Your task to perform on an android device: Open Google Maps and go to "Timeline" Image 0: 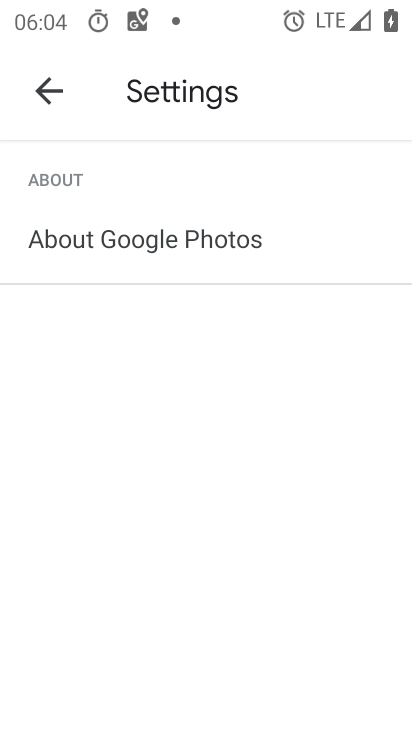
Step 0: press home button
Your task to perform on an android device: Open Google Maps and go to "Timeline" Image 1: 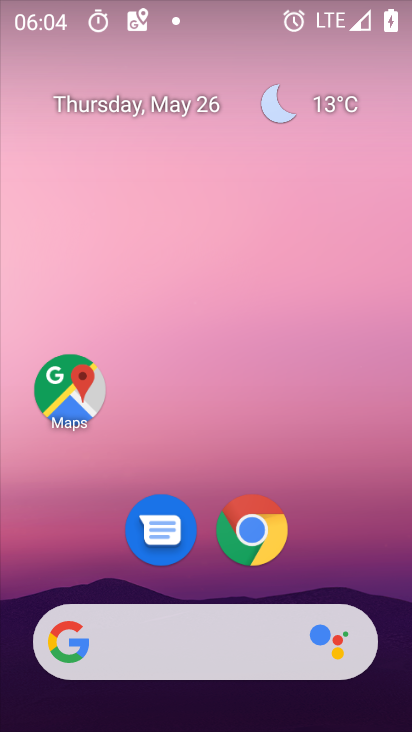
Step 1: click (33, 198)
Your task to perform on an android device: Open Google Maps and go to "Timeline" Image 2: 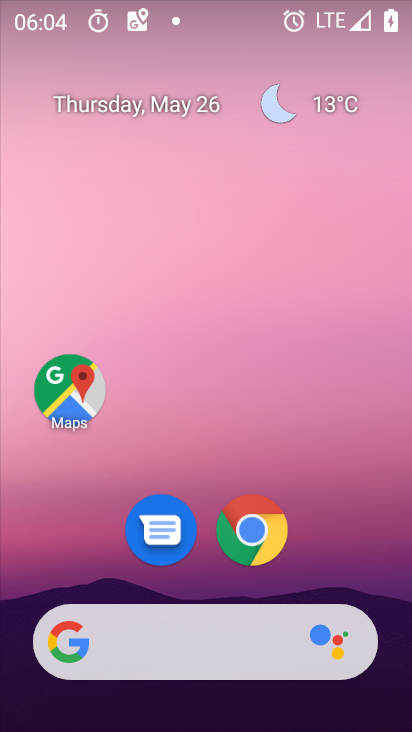
Step 2: drag from (276, 590) to (308, 50)
Your task to perform on an android device: Open Google Maps and go to "Timeline" Image 3: 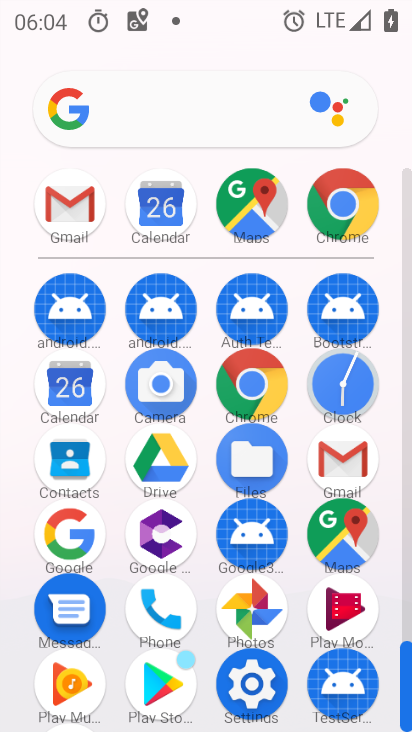
Step 3: click (353, 537)
Your task to perform on an android device: Open Google Maps and go to "Timeline" Image 4: 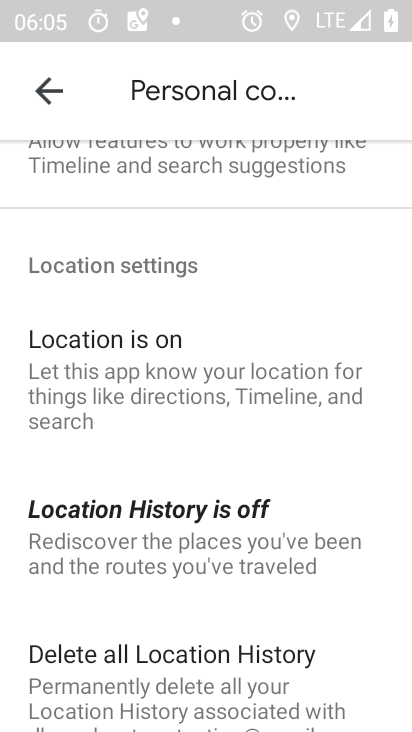
Step 4: press back button
Your task to perform on an android device: Open Google Maps and go to "Timeline" Image 5: 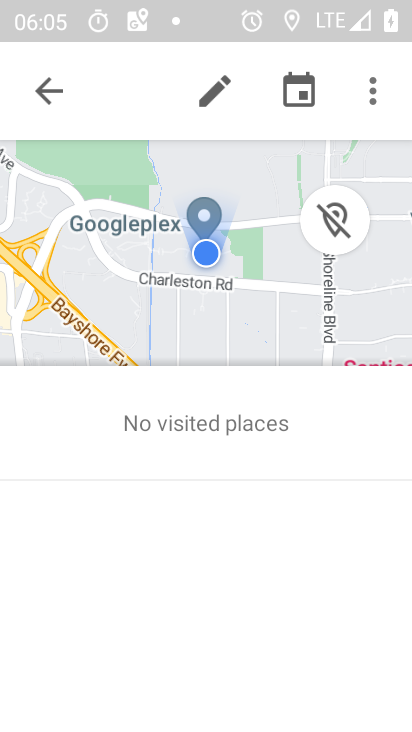
Step 5: click (385, 90)
Your task to perform on an android device: Open Google Maps and go to "Timeline" Image 6: 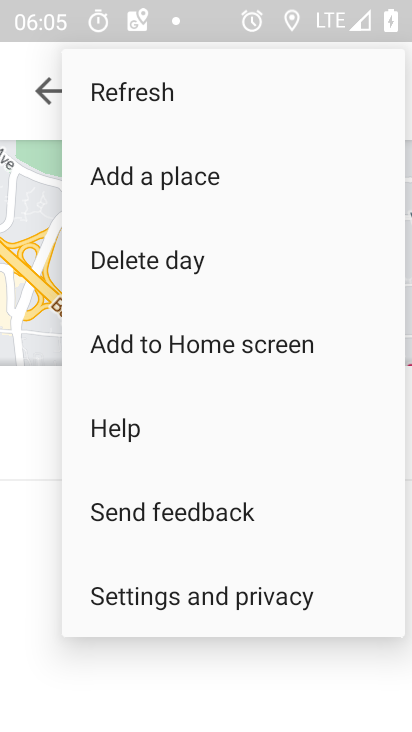
Step 6: click (331, 698)
Your task to perform on an android device: Open Google Maps and go to "Timeline" Image 7: 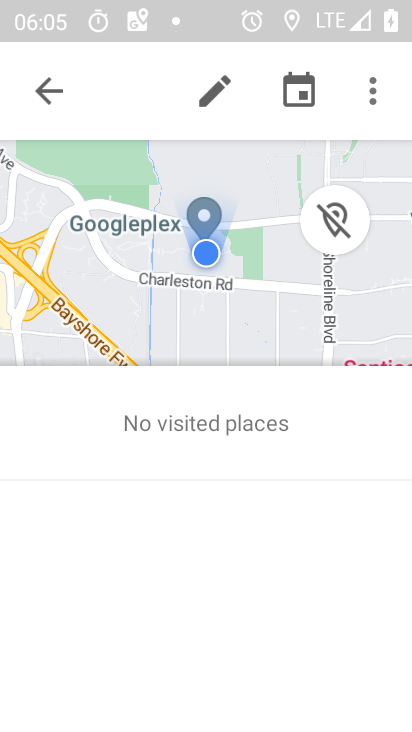
Step 7: task complete